Your task to perform on an android device: turn on the 24-hour format for clock Image 0: 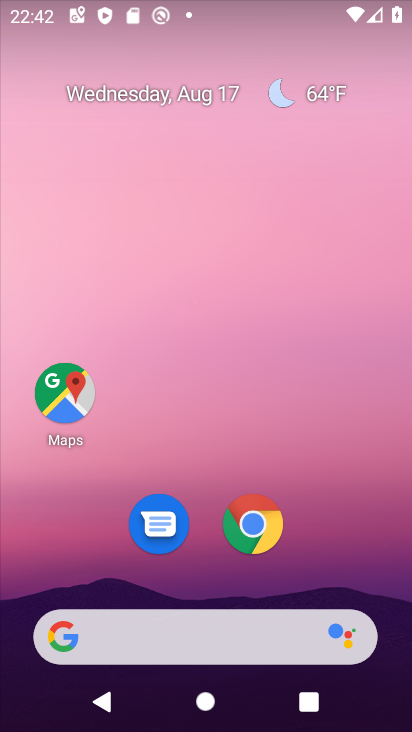
Step 0: drag from (309, 495) to (342, 1)
Your task to perform on an android device: turn on the 24-hour format for clock Image 1: 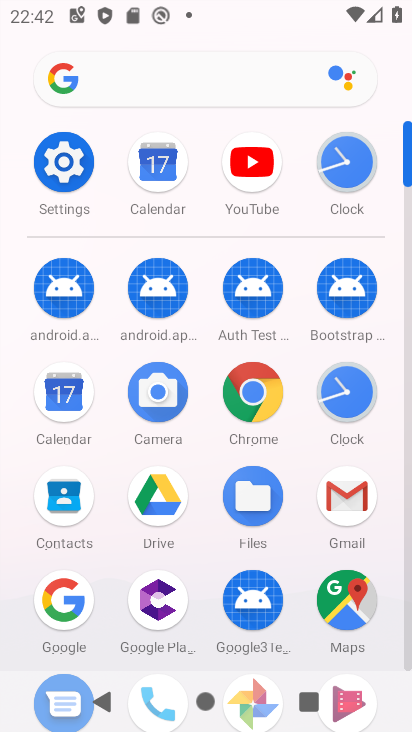
Step 1: click (349, 158)
Your task to perform on an android device: turn on the 24-hour format for clock Image 2: 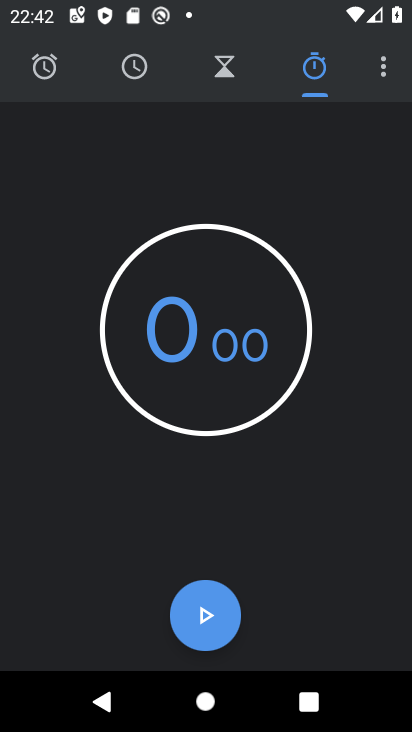
Step 2: click (389, 74)
Your task to perform on an android device: turn on the 24-hour format for clock Image 3: 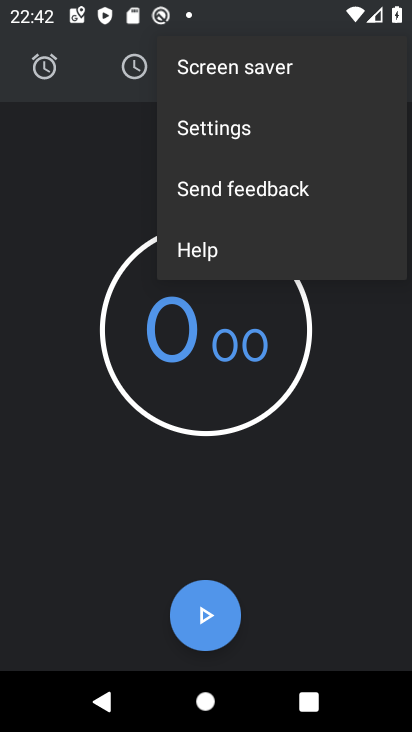
Step 3: click (278, 135)
Your task to perform on an android device: turn on the 24-hour format for clock Image 4: 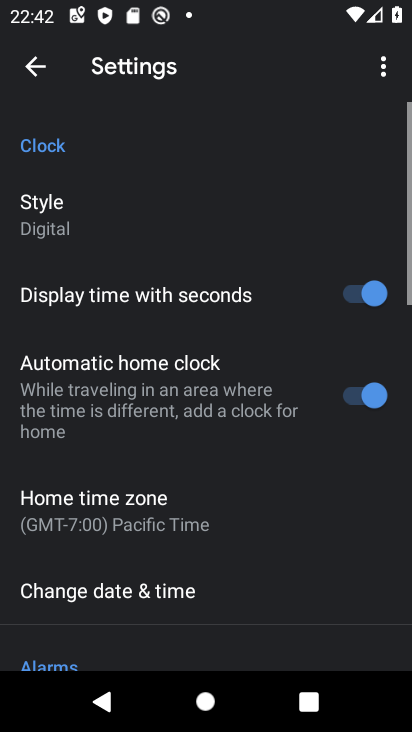
Step 4: drag from (285, 494) to (287, 439)
Your task to perform on an android device: turn on the 24-hour format for clock Image 5: 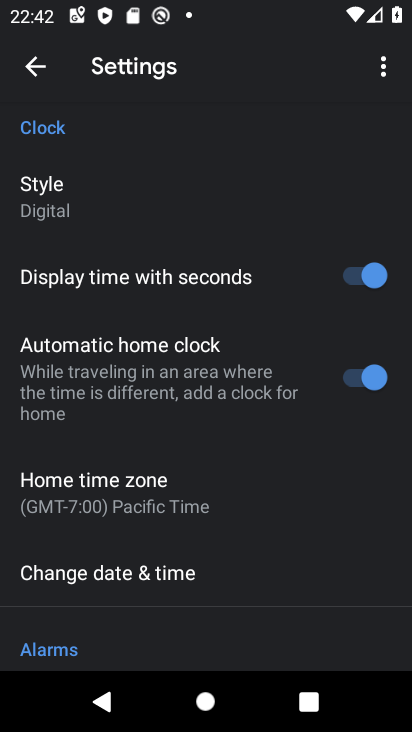
Step 5: click (251, 573)
Your task to perform on an android device: turn on the 24-hour format for clock Image 6: 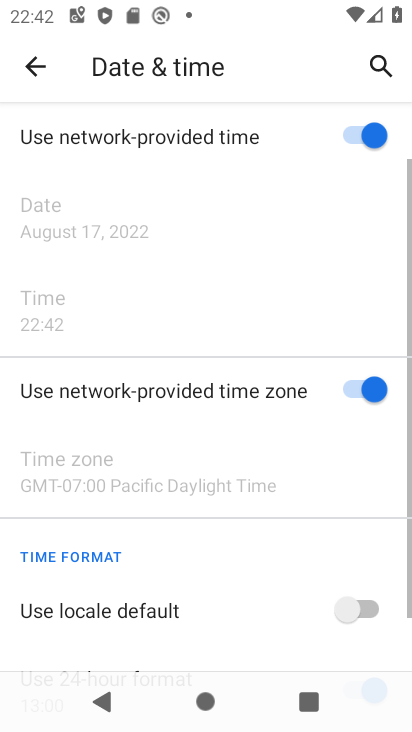
Step 6: task complete